Your task to perform on an android device: Go to settings Image 0: 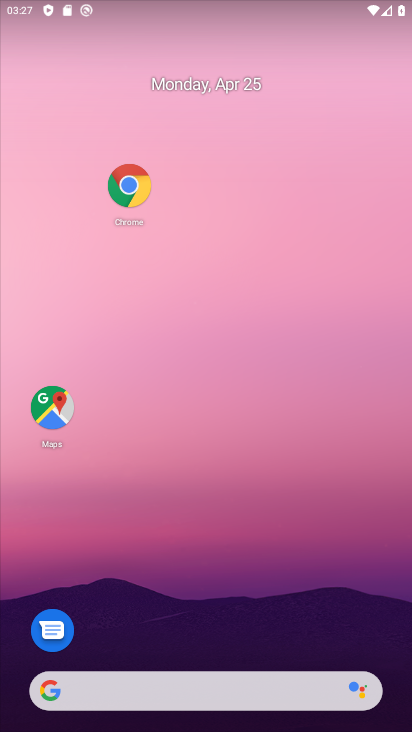
Step 0: drag from (184, 654) to (234, 164)
Your task to perform on an android device: Go to settings Image 1: 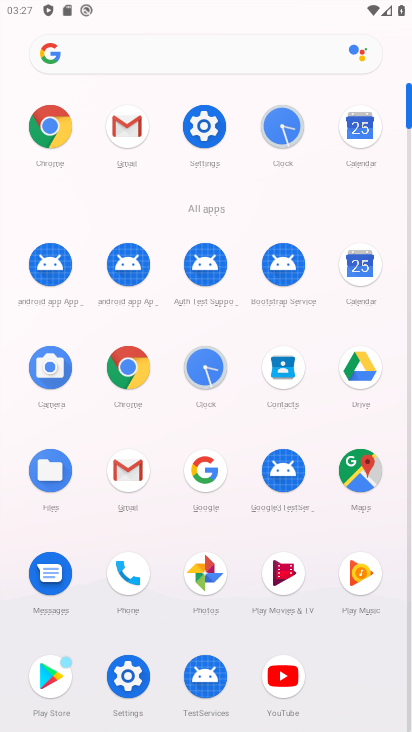
Step 1: click (211, 133)
Your task to perform on an android device: Go to settings Image 2: 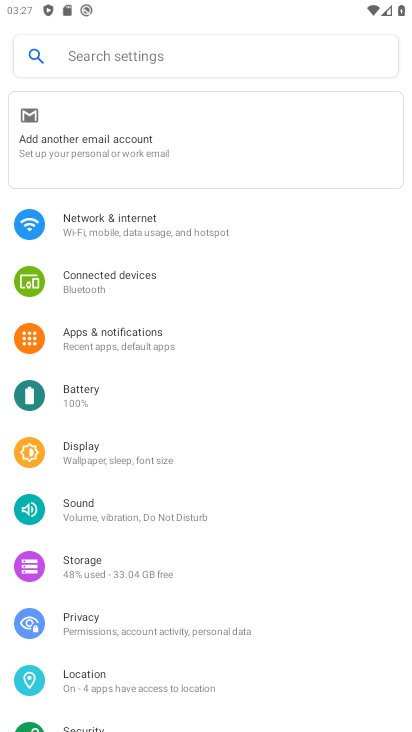
Step 2: task complete